Your task to perform on an android device: Open accessibility settings Image 0: 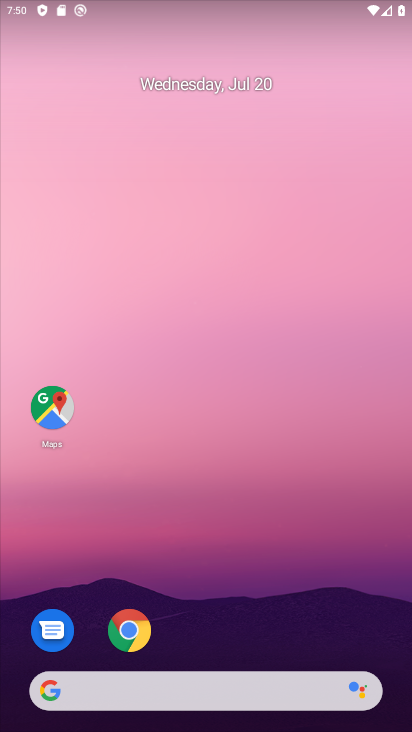
Step 0: drag from (283, 590) to (308, 118)
Your task to perform on an android device: Open accessibility settings Image 1: 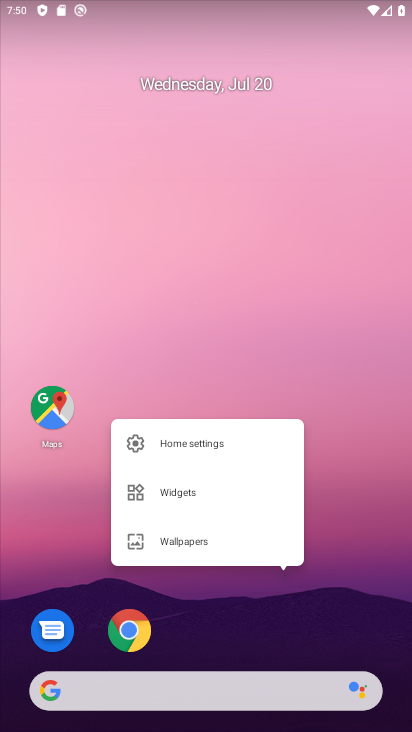
Step 1: click (309, 220)
Your task to perform on an android device: Open accessibility settings Image 2: 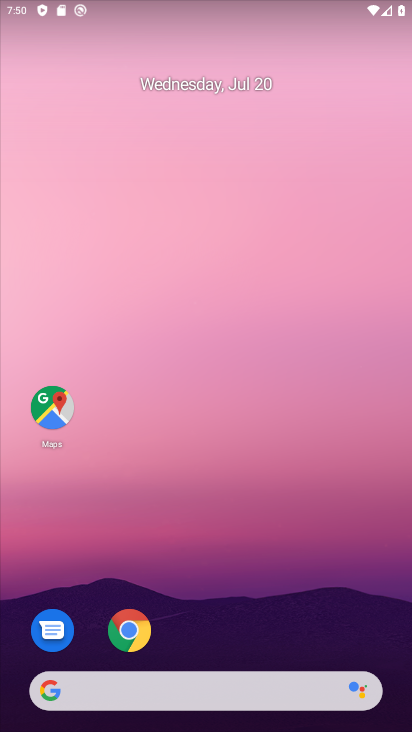
Step 2: drag from (297, 622) to (282, 127)
Your task to perform on an android device: Open accessibility settings Image 3: 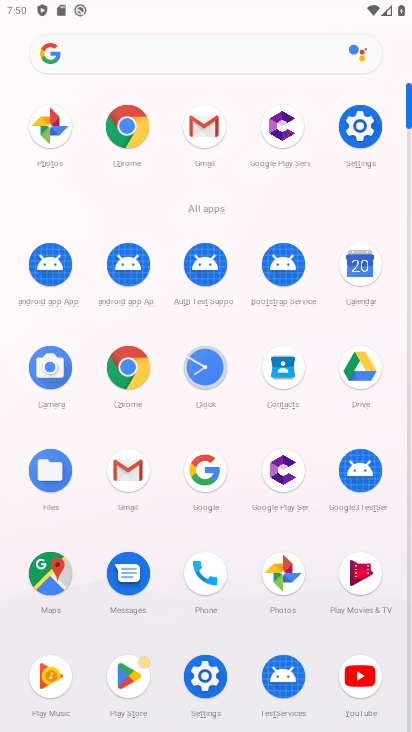
Step 3: click (354, 121)
Your task to perform on an android device: Open accessibility settings Image 4: 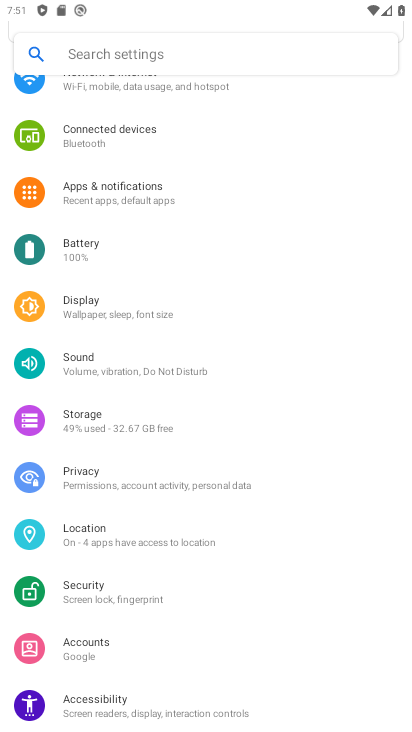
Step 4: click (305, 706)
Your task to perform on an android device: Open accessibility settings Image 5: 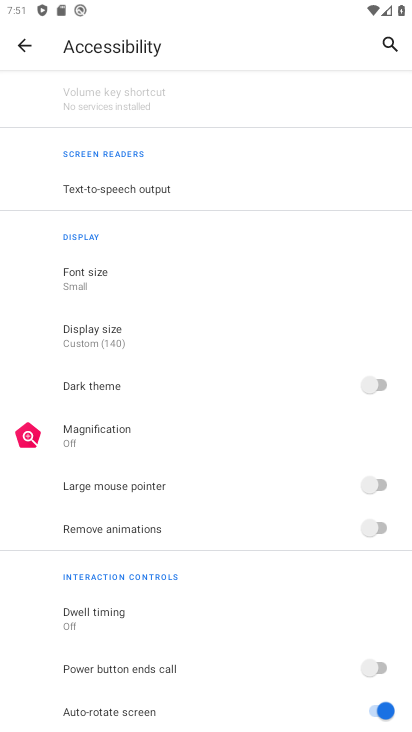
Step 5: task complete